Your task to perform on an android device: Clear the cart on ebay.com. Add bose soundlink mini to the cart on ebay.com Image 0: 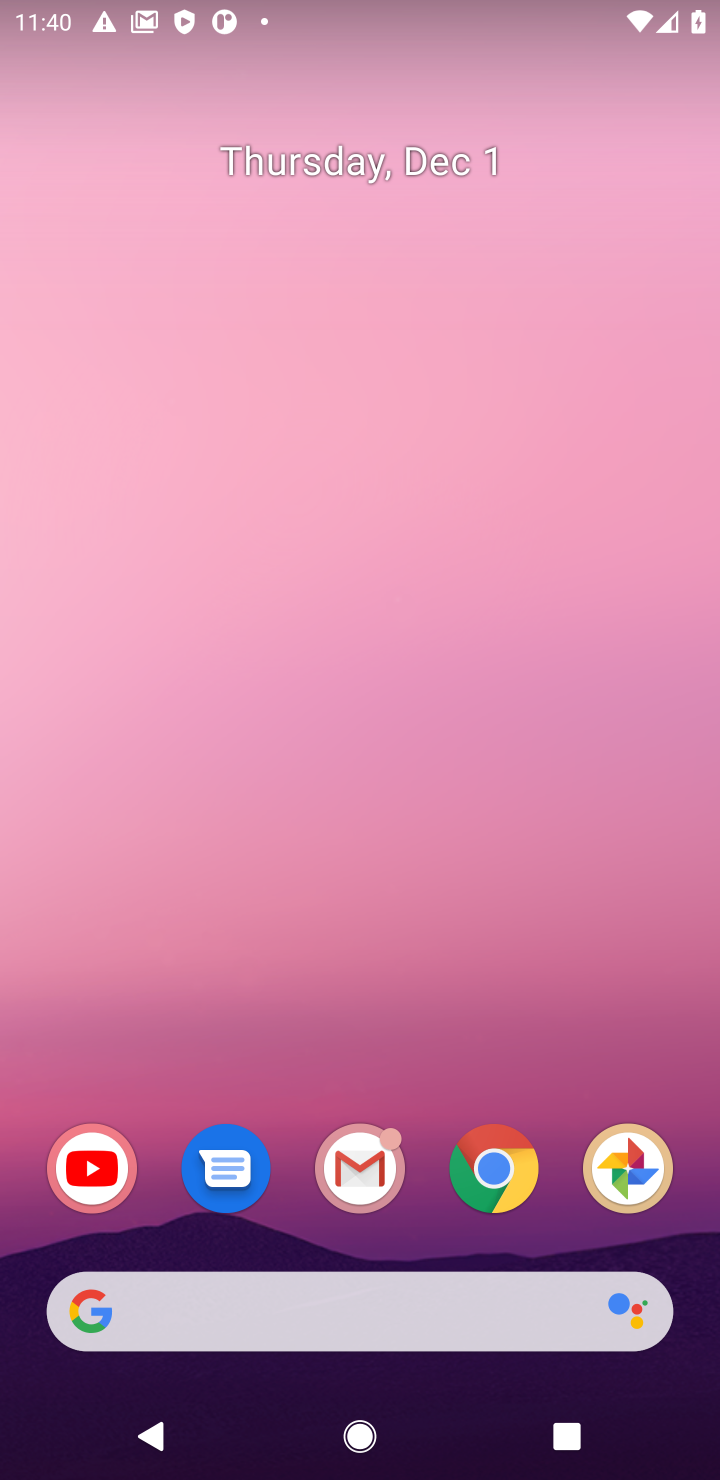
Step 0: click (491, 1169)
Your task to perform on an android device: Clear the cart on ebay.com. Add bose soundlink mini to the cart on ebay.com Image 1: 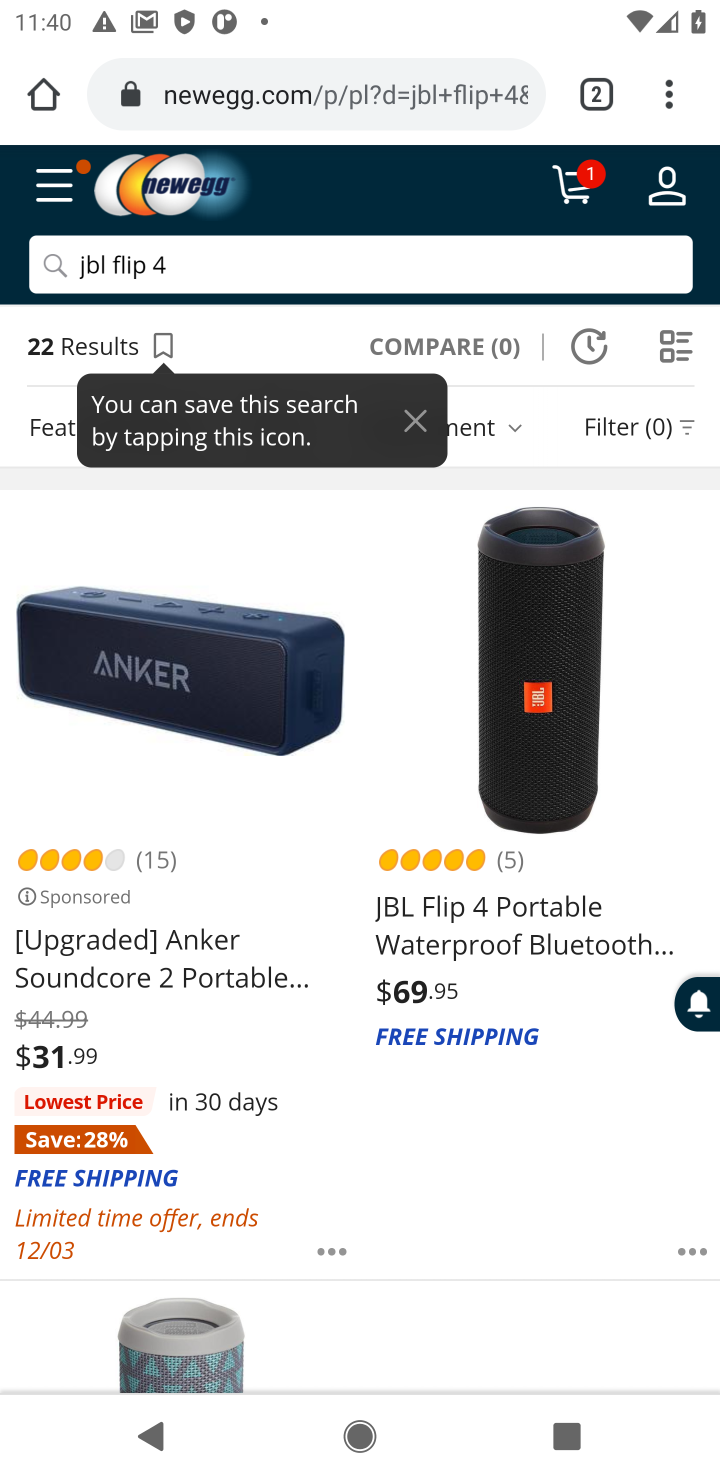
Step 1: click (287, 101)
Your task to perform on an android device: Clear the cart on ebay.com. Add bose soundlink mini to the cart on ebay.com Image 2: 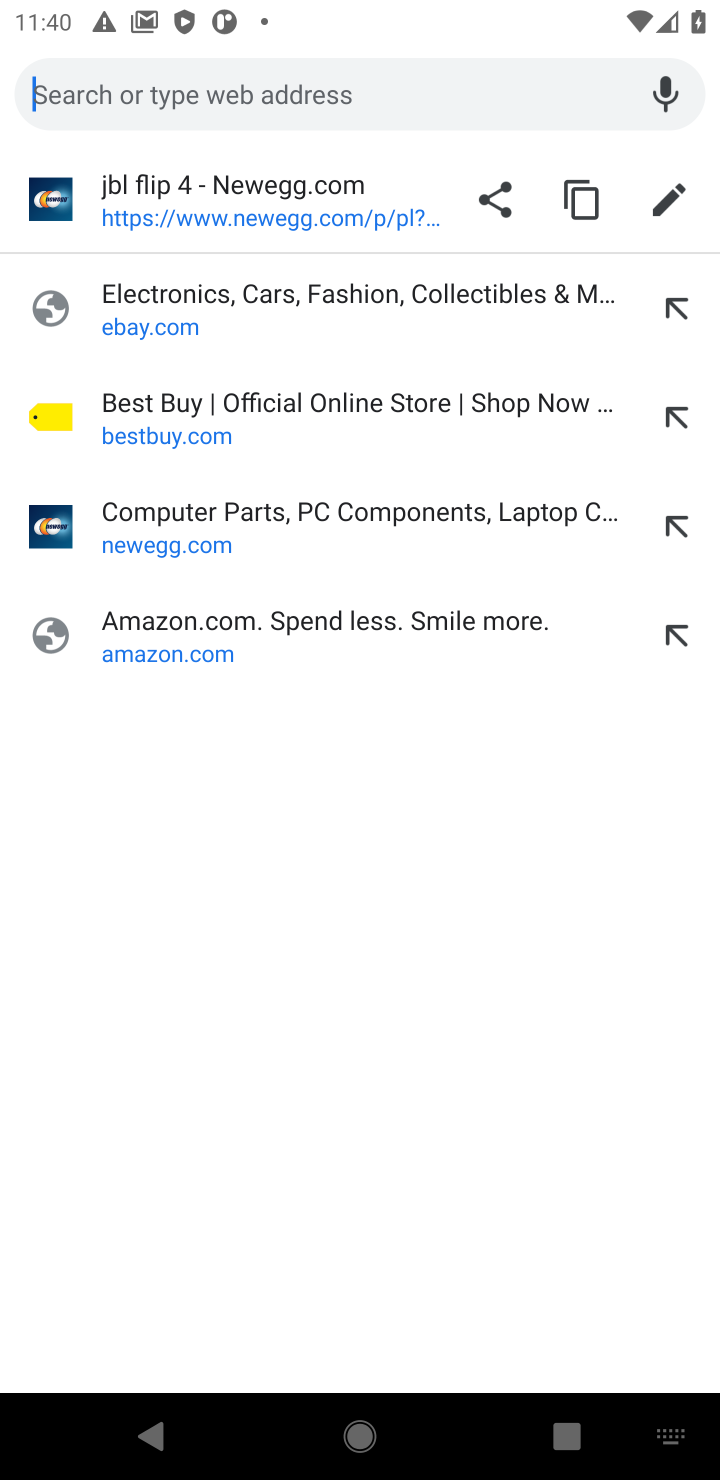
Step 2: click (144, 332)
Your task to perform on an android device: Clear the cart on ebay.com. Add bose soundlink mini to the cart on ebay.com Image 3: 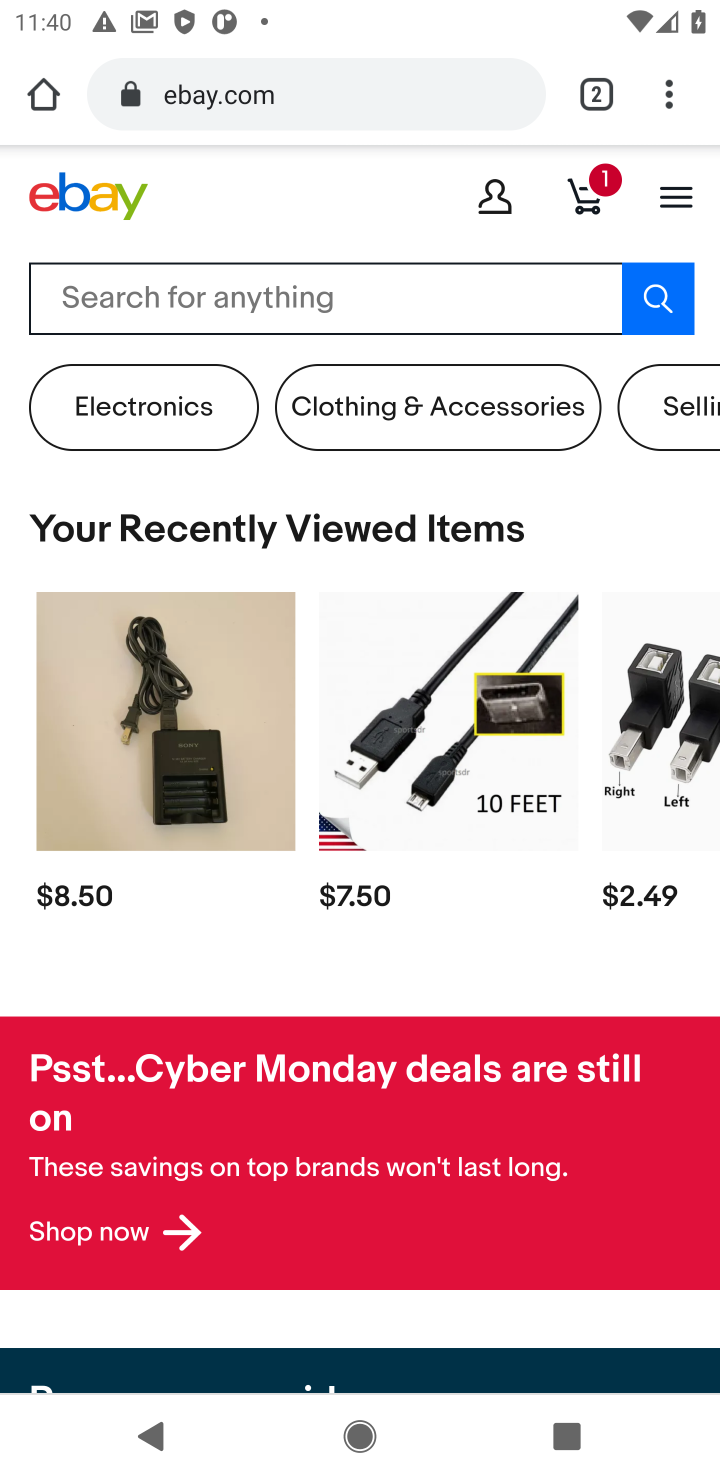
Step 3: click (601, 205)
Your task to perform on an android device: Clear the cart on ebay.com. Add bose soundlink mini to the cart on ebay.com Image 4: 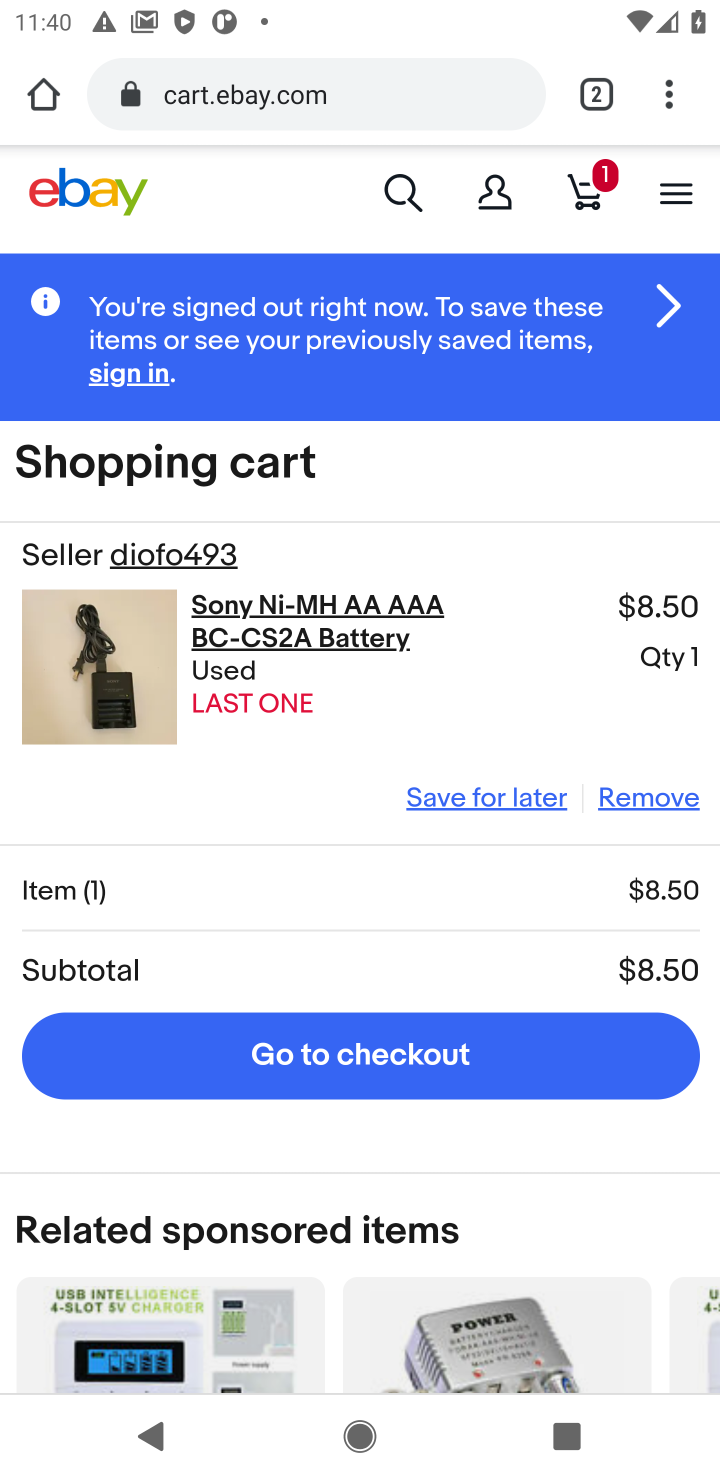
Step 4: click (665, 798)
Your task to perform on an android device: Clear the cart on ebay.com. Add bose soundlink mini to the cart on ebay.com Image 5: 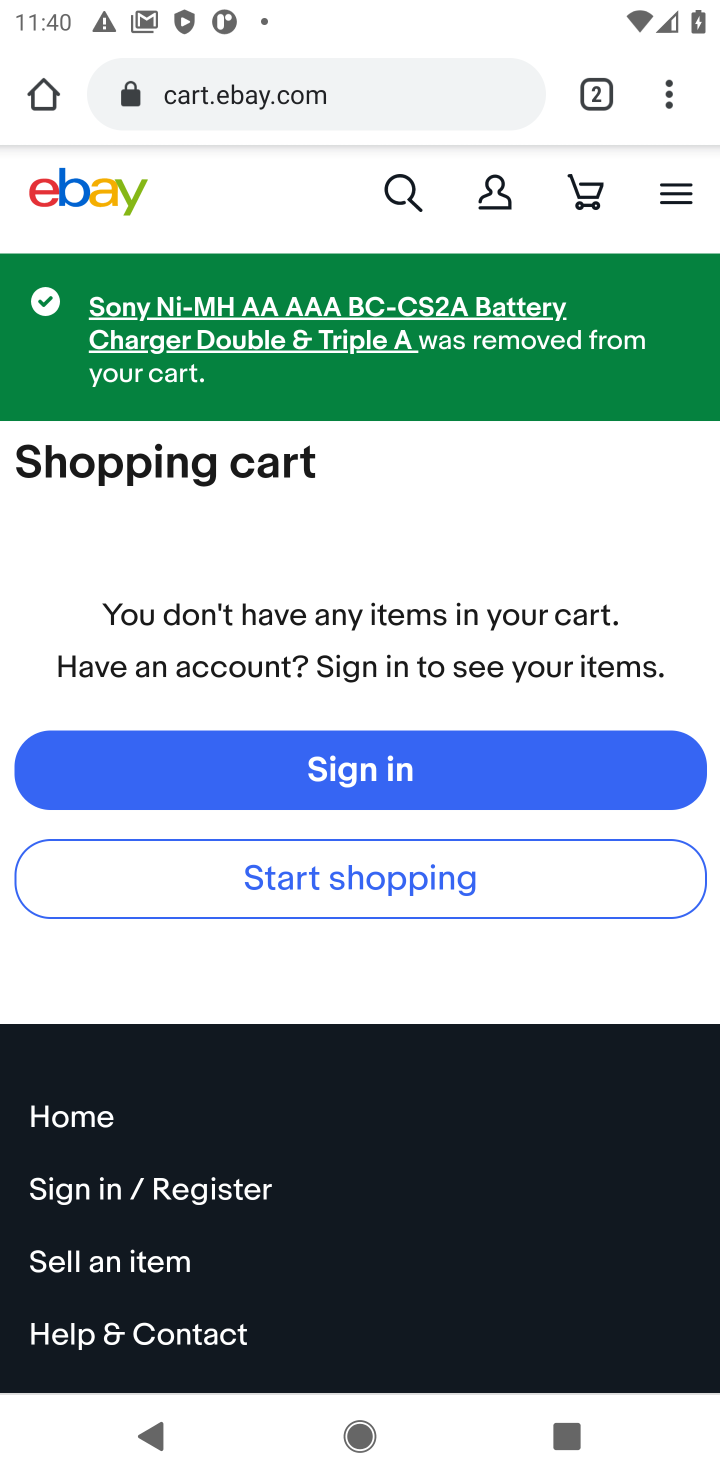
Step 5: click (394, 186)
Your task to perform on an android device: Clear the cart on ebay.com. Add bose soundlink mini to the cart on ebay.com Image 6: 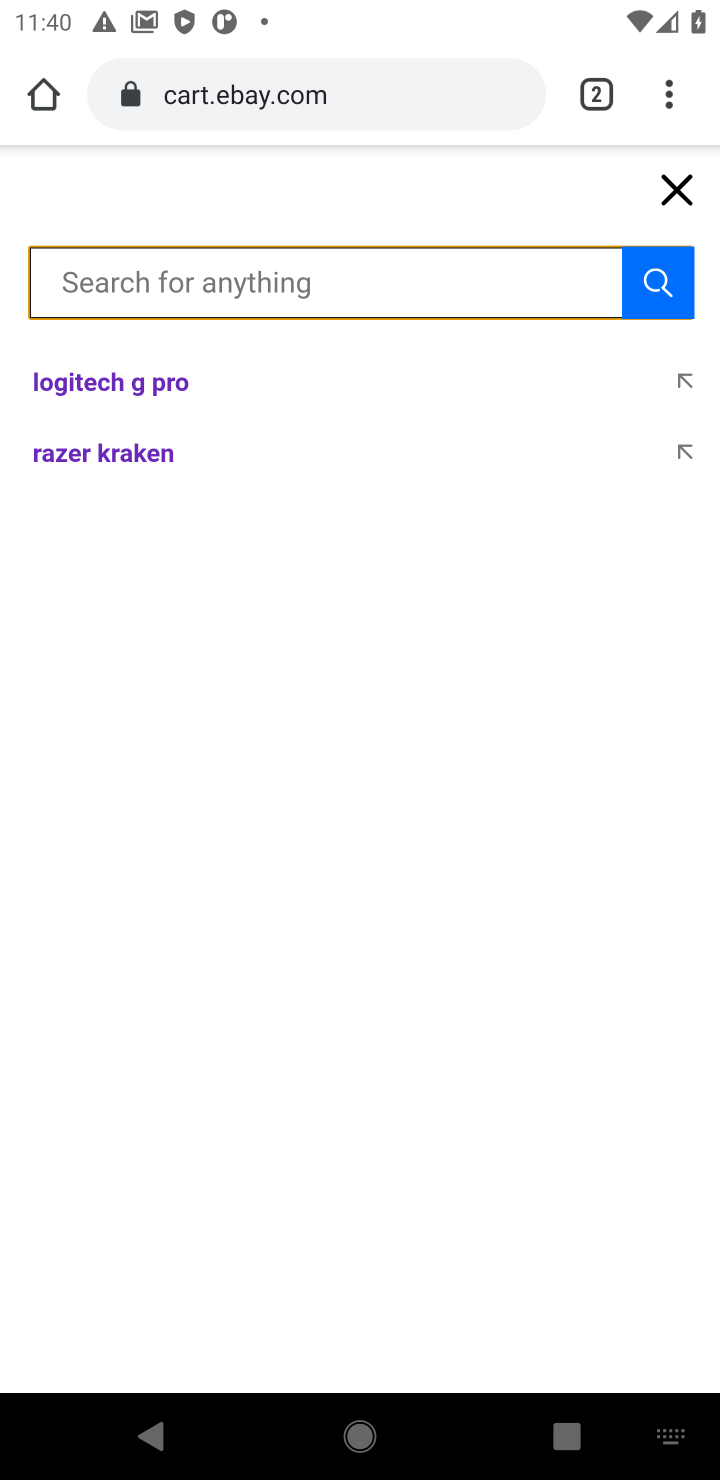
Step 6: type "bose soundlink mini"
Your task to perform on an android device: Clear the cart on ebay.com. Add bose soundlink mini to the cart on ebay.com Image 7: 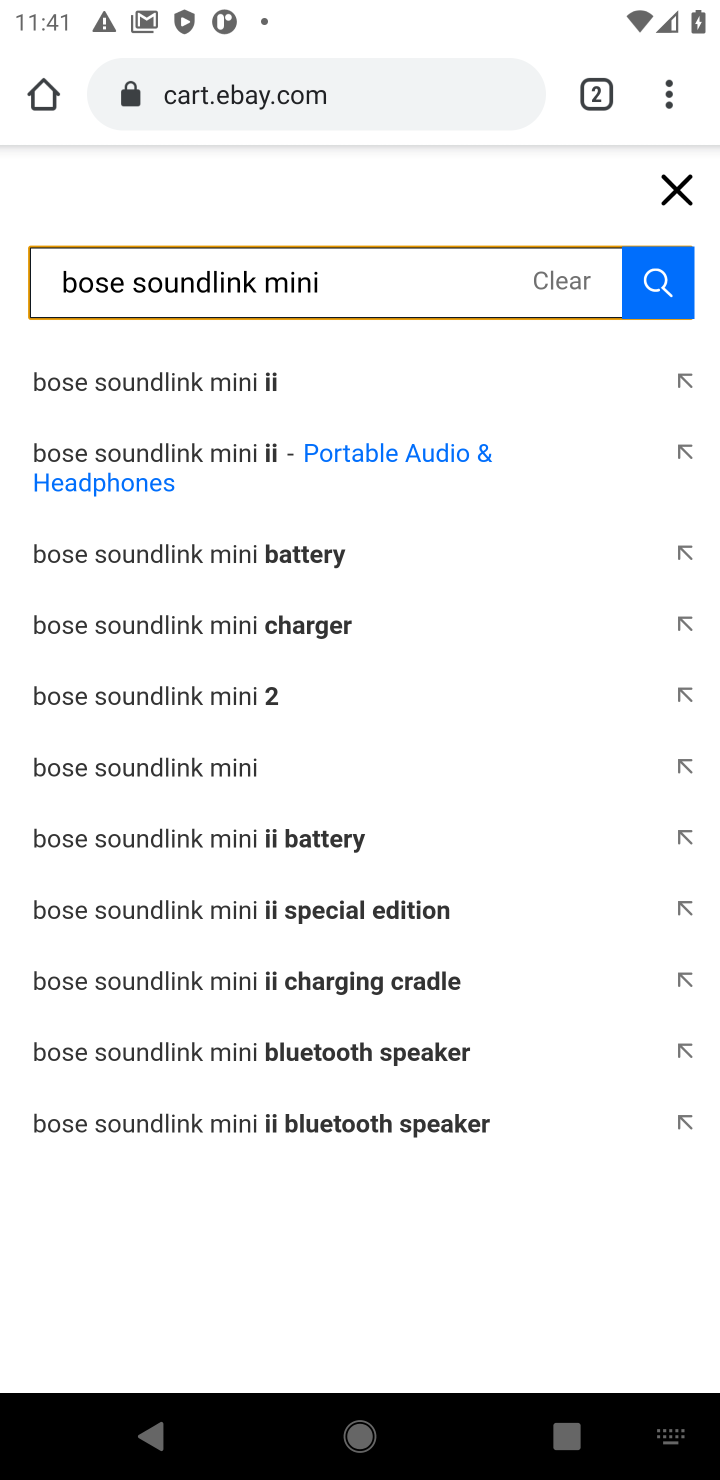
Step 7: click (147, 755)
Your task to perform on an android device: Clear the cart on ebay.com. Add bose soundlink mini to the cart on ebay.com Image 8: 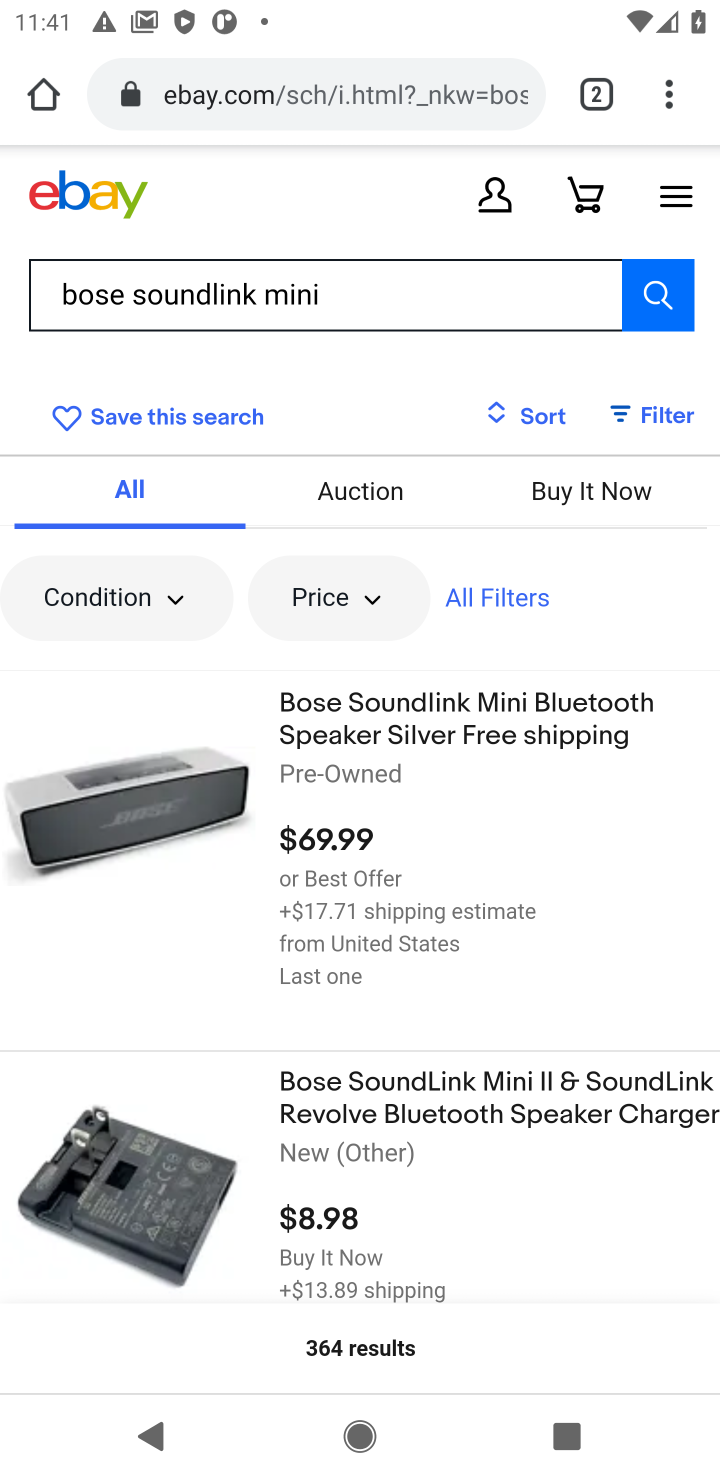
Step 8: click (373, 739)
Your task to perform on an android device: Clear the cart on ebay.com. Add bose soundlink mini to the cart on ebay.com Image 9: 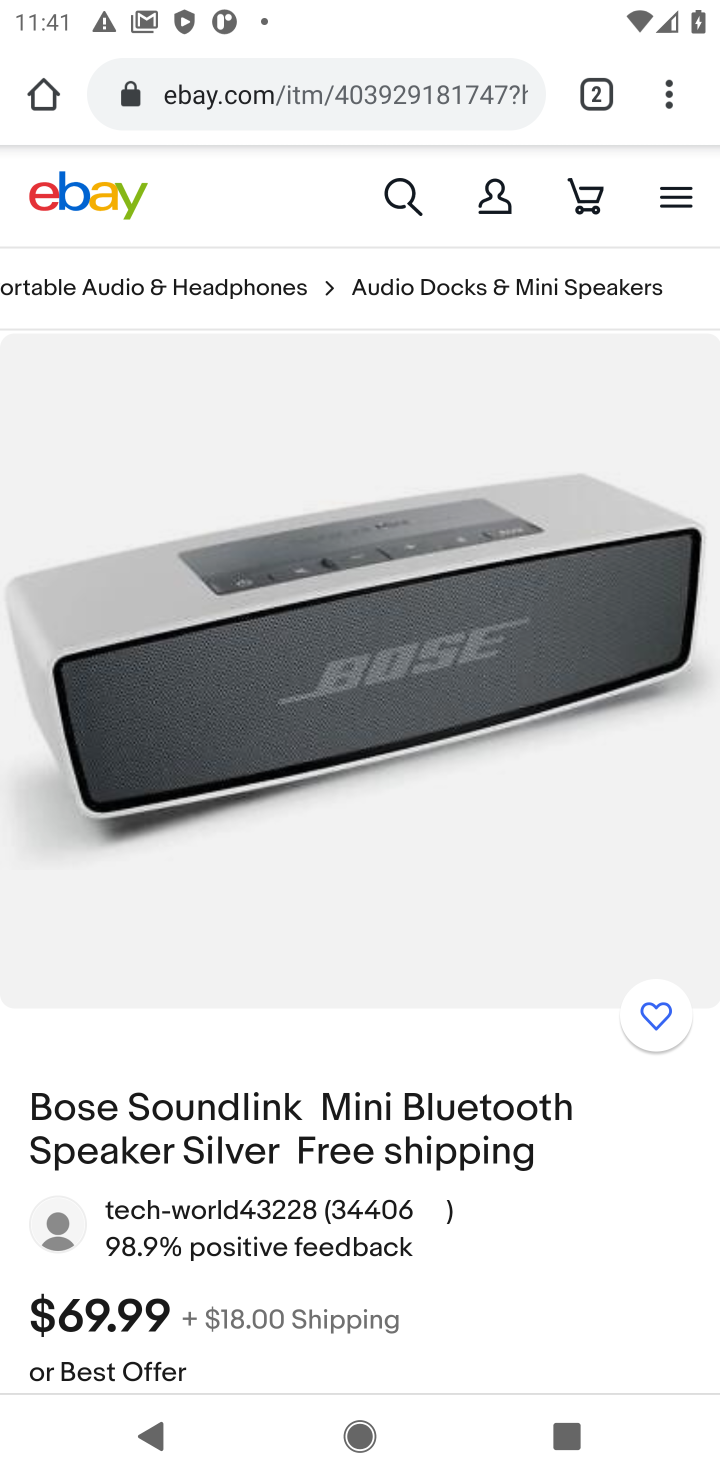
Step 9: drag from (392, 1067) to (406, 562)
Your task to perform on an android device: Clear the cart on ebay.com. Add bose soundlink mini to the cart on ebay.com Image 10: 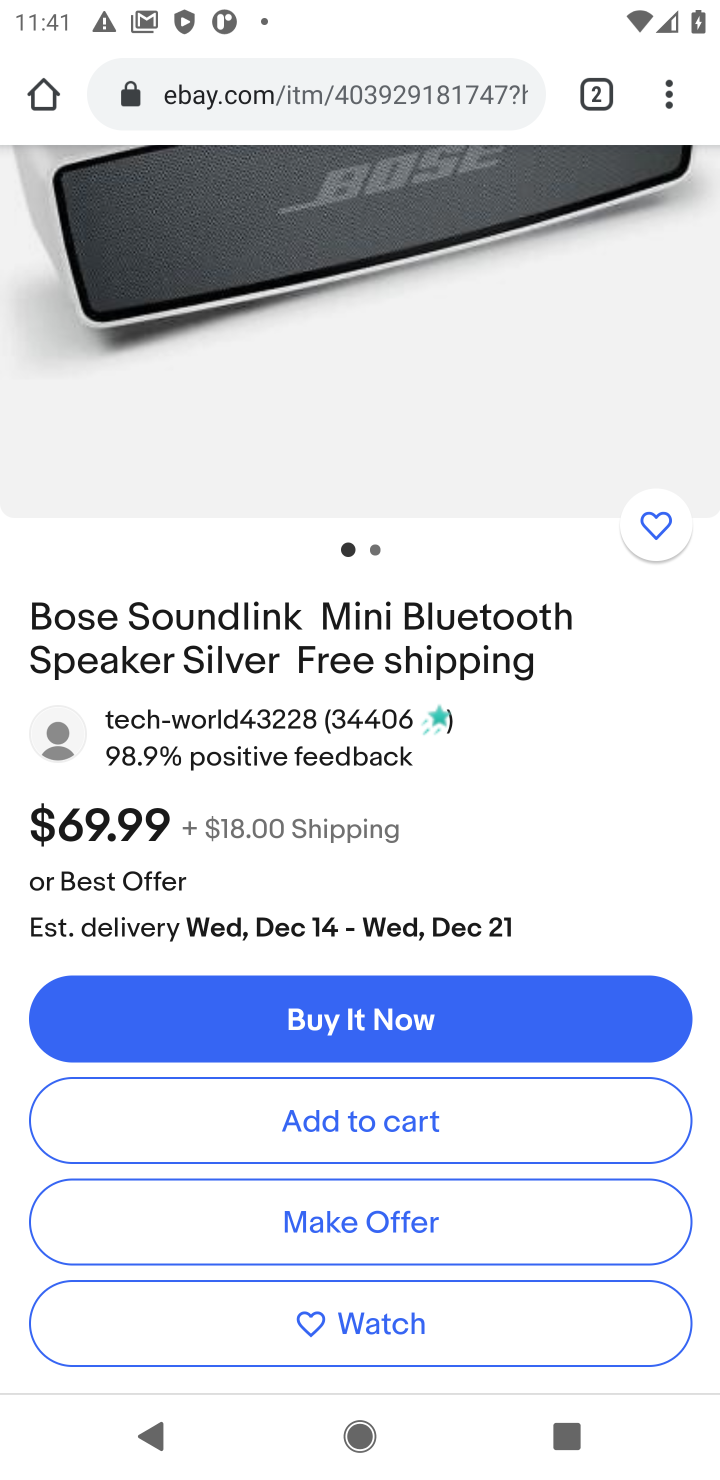
Step 10: click (344, 1126)
Your task to perform on an android device: Clear the cart on ebay.com. Add bose soundlink mini to the cart on ebay.com Image 11: 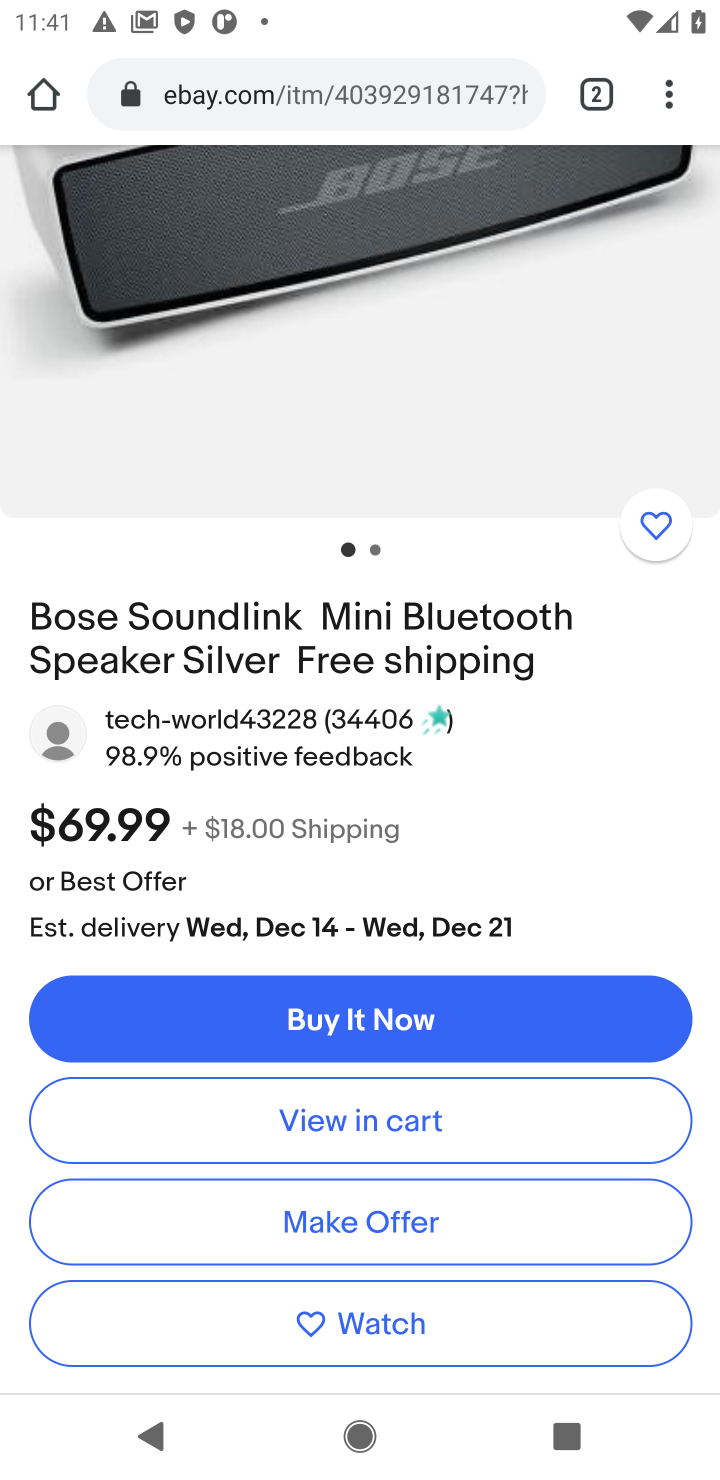
Step 11: task complete